Your task to perform on an android device: install app "Duolingo: language lessons" Image 0: 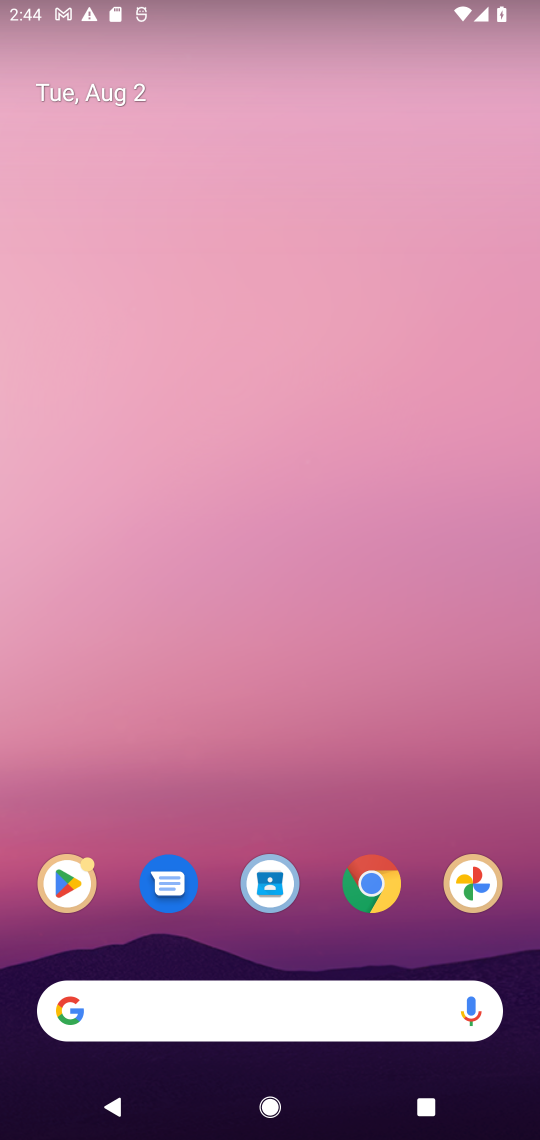
Step 0: click (174, 1122)
Your task to perform on an android device: install app "Duolingo: language lessons" Image 1: 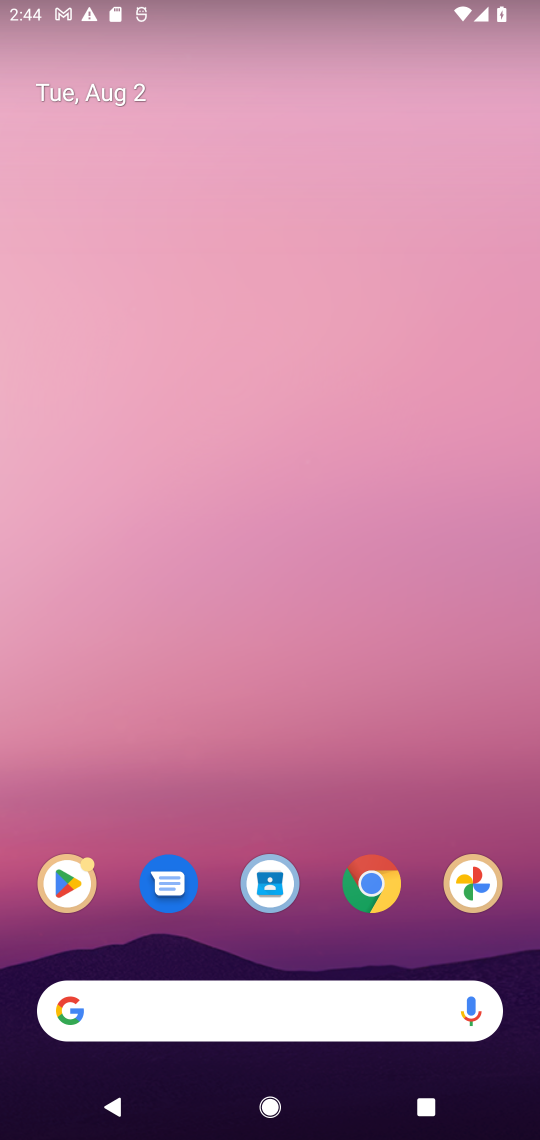
Step 1: click (66, 892)
Your task to perform on an android device: install app "Duolingo: language lessons" Image 2: 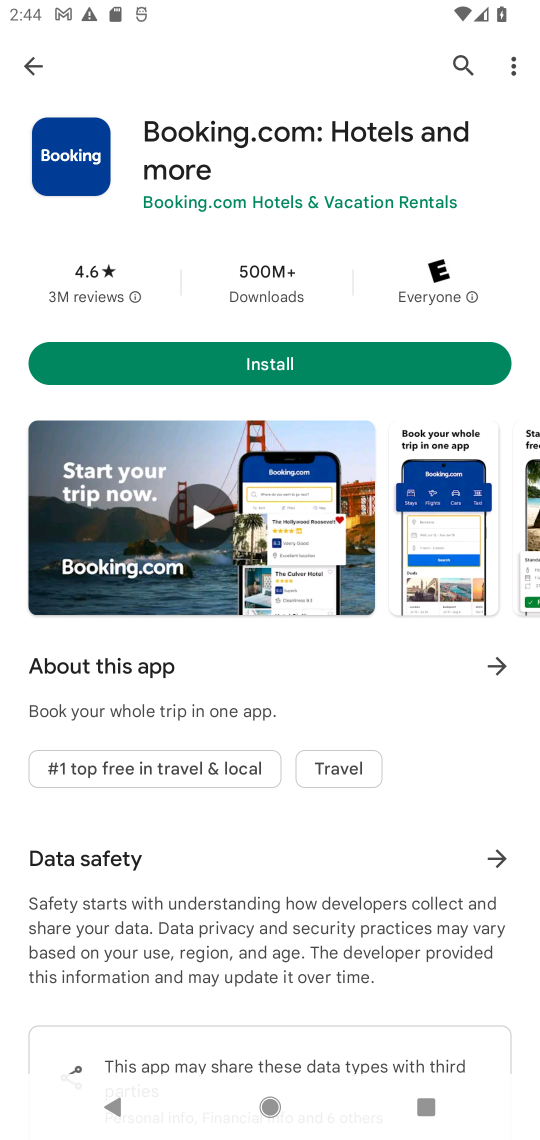
Step 2: click (453, 75)
Your task to perform on an android device: install app "Duolingo: language lessons" Image 3: 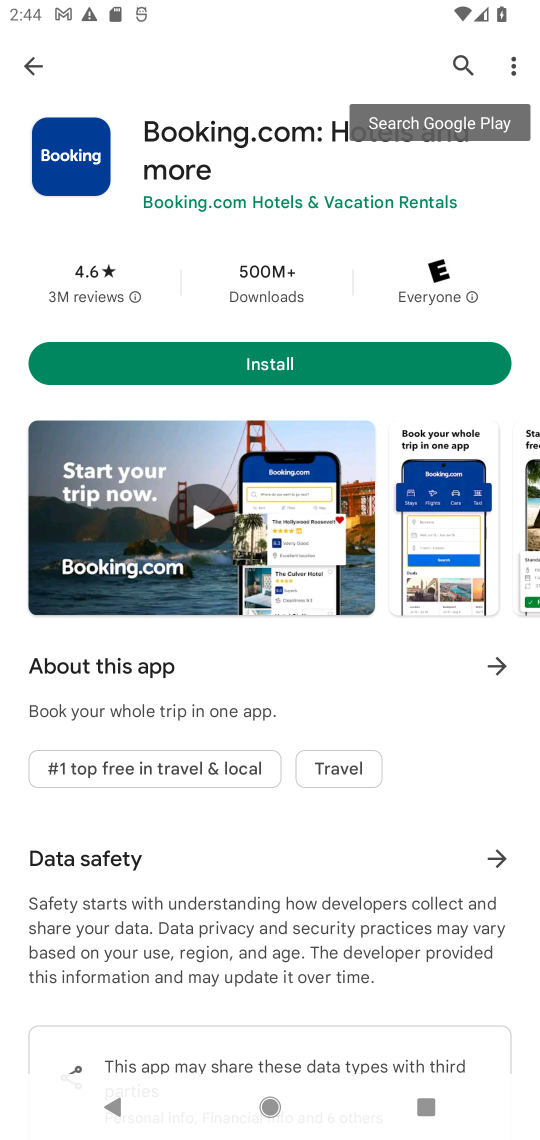
Step 3: click (453, 75)
Your task to perform on an android device: install app "Duolingo: language lessons" Image 4: 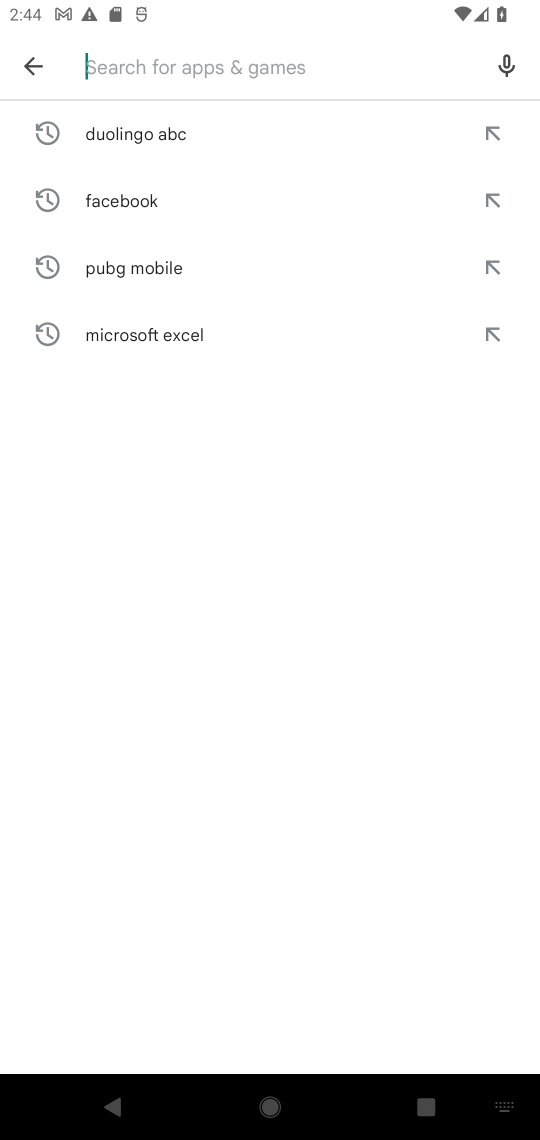
Step 4: click (453, 75)
Your task to perform on an android device: install app "Duolingo: language lessons" Image 5: 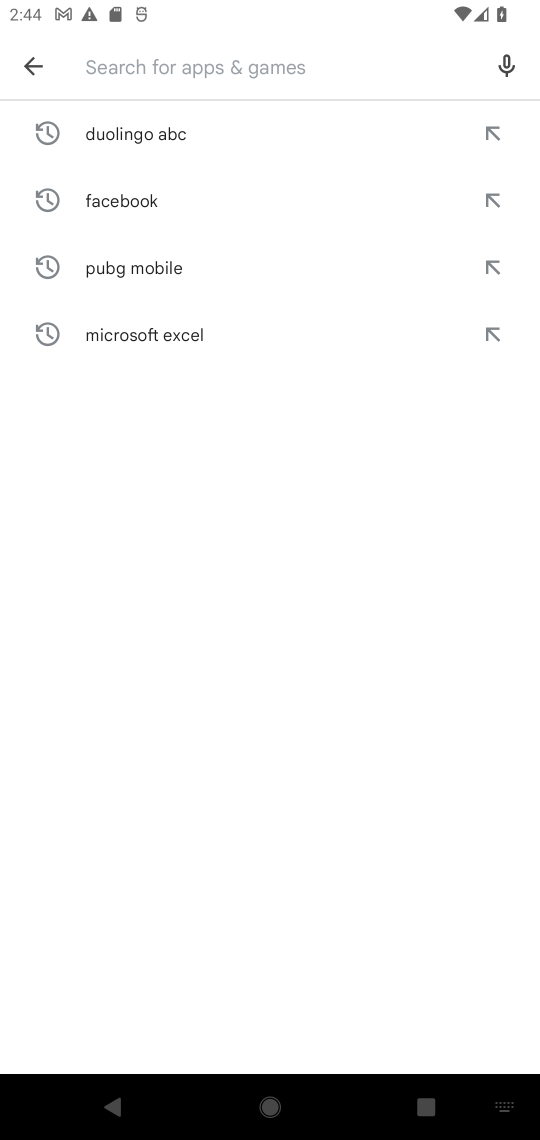
Step 5: type "Duolingo: language lessons""
Your task to perform on an android device: install app "Duolingo: language lessons" Image 6: 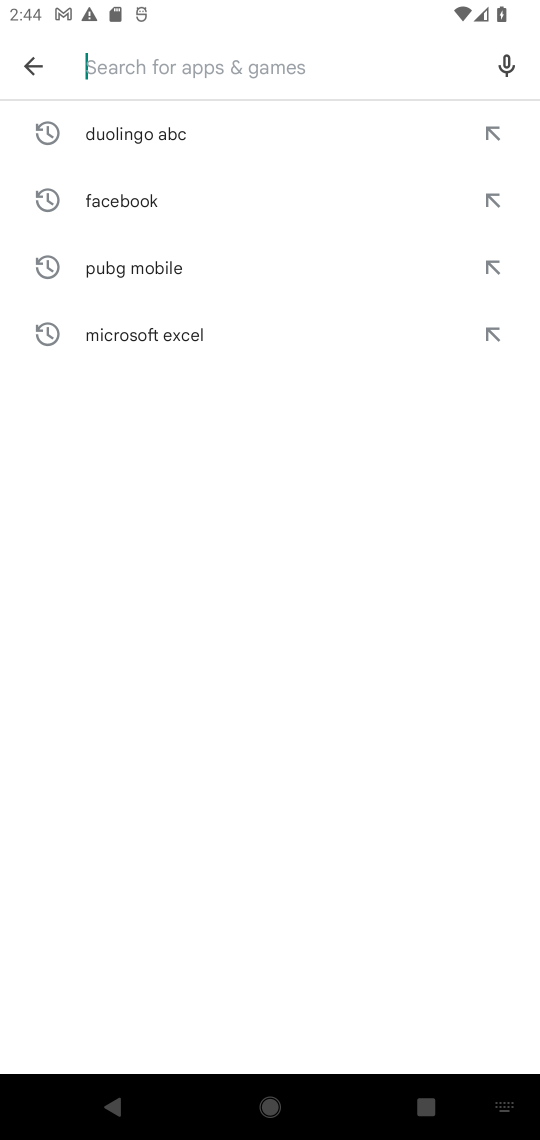
Step 6: type ""
Your task to perform on an android device: install app "Duolingo: language lessons" Image 7: 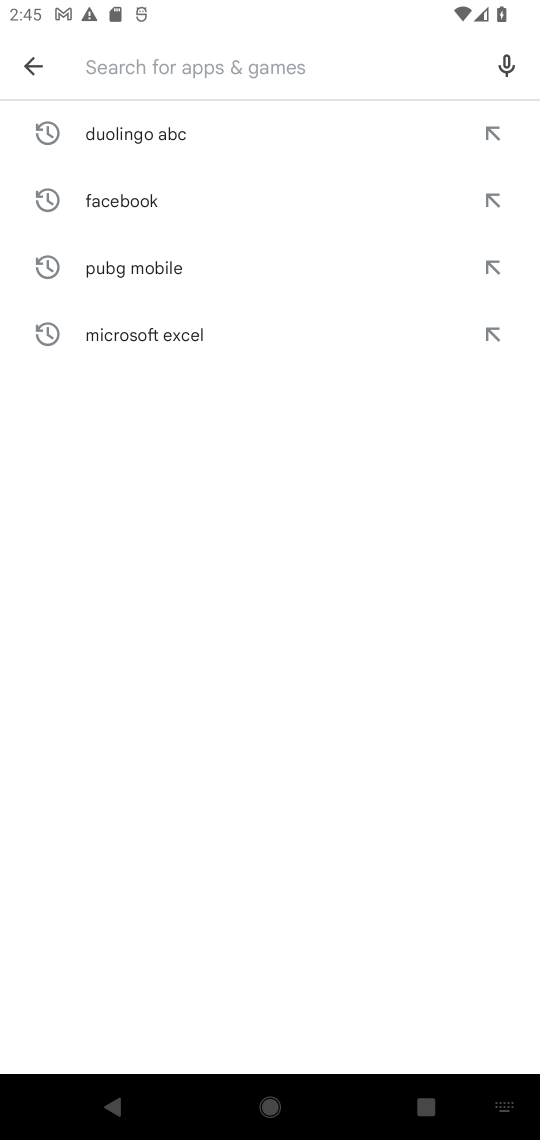
Step 7: type "Duolingo: language lessons"
Your task to perform on an android device: install app "Duolingo: language lessons" Image 8: 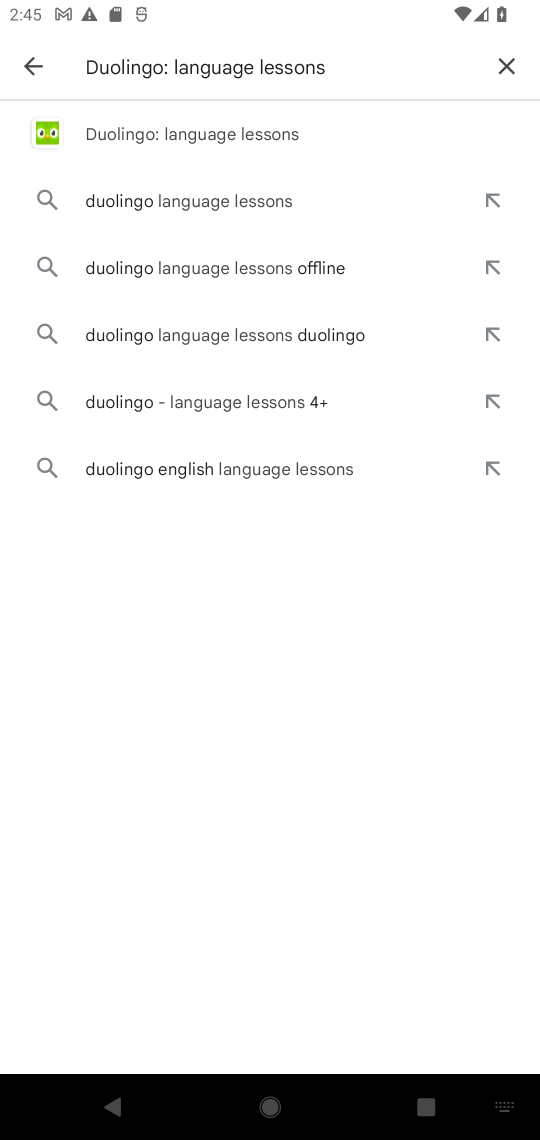
Step 8: click (121, 109)
Your task to perform on an android device: install app "Duolingo: language lessons" Image 9: 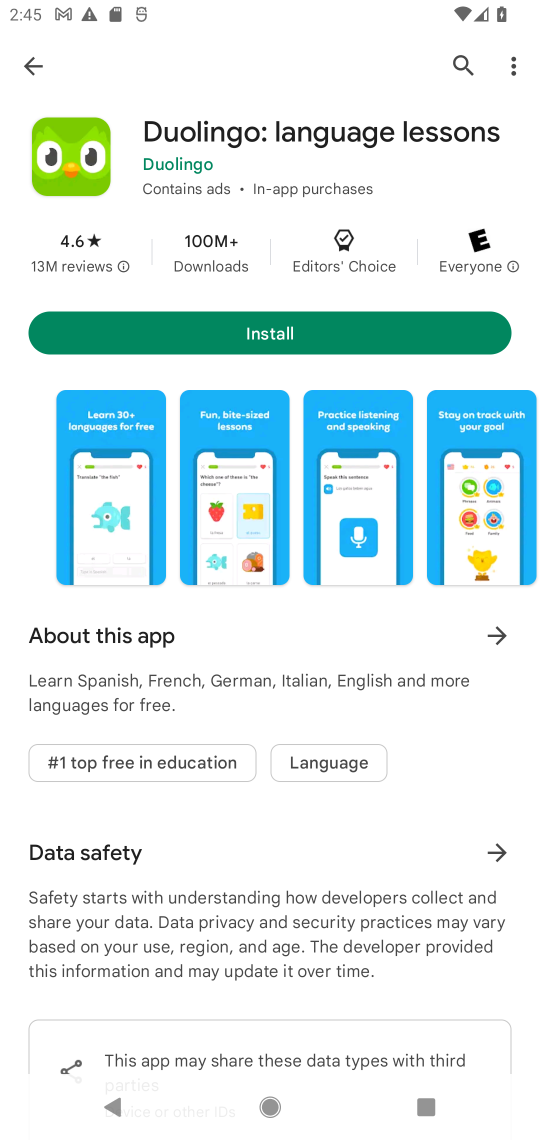
Step 9: click (244, 335)
Your task to perform on an android device: install app "Duolingo: language lessons" Image 10: 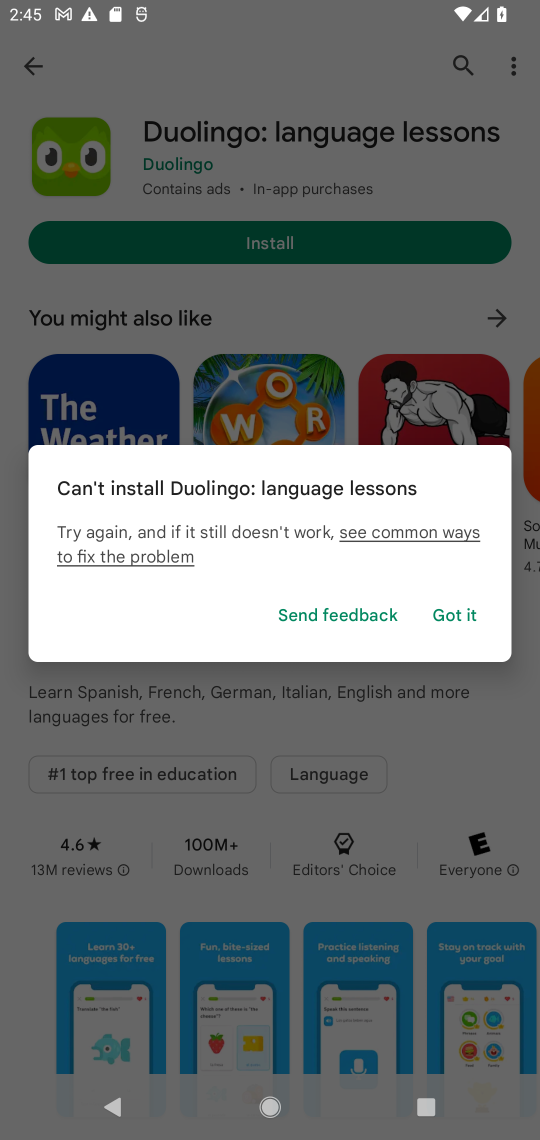
Step 10: task complete